Your task to perform on an android device: turn off javascript in the chrome app Image 0: 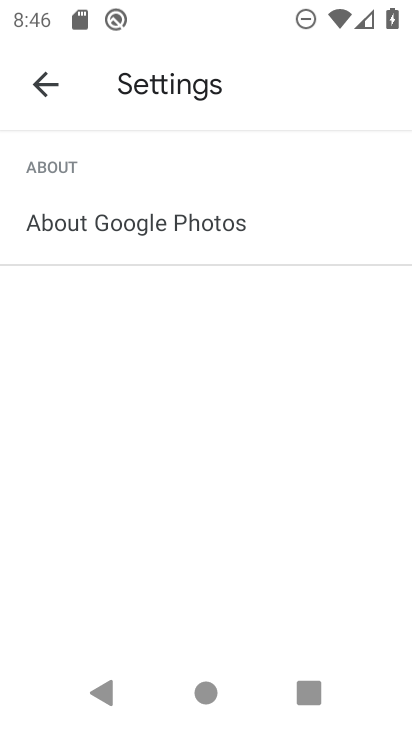
Step 0: press home button
Your task to perform on an android device: turn off javascript in the chrome app Image 1: 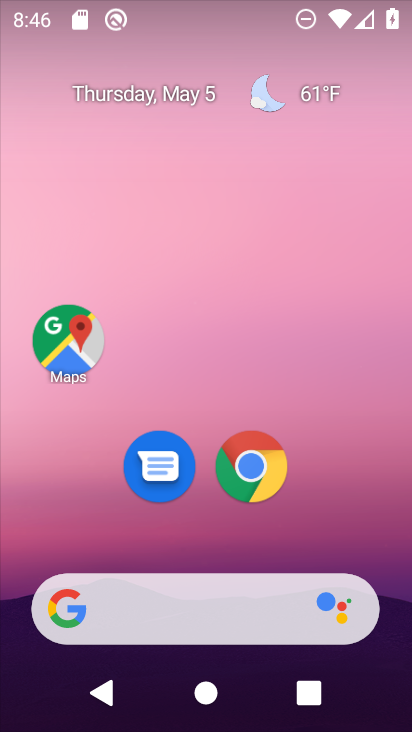
Step 1: click (263, 485)
Your task to perform on an android device: turn off javascript in the chrome app Image 2: 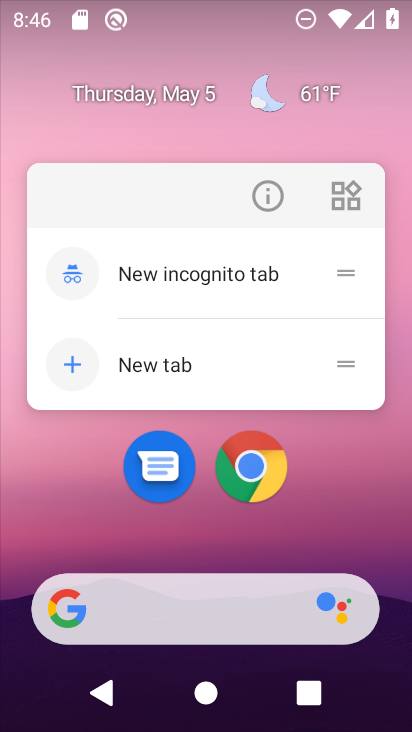
Step 2: click (253, 498)
Your task to perform on an android device: turn off javascript in the chrome app Image 3: 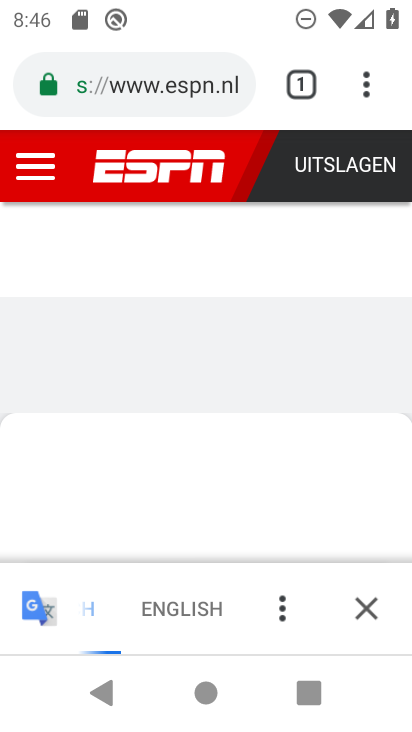
Step 3: drag from (369, 97) to (118, 518)
Your task to perform on an android device: turn off javascript in the chrome app Image 4: 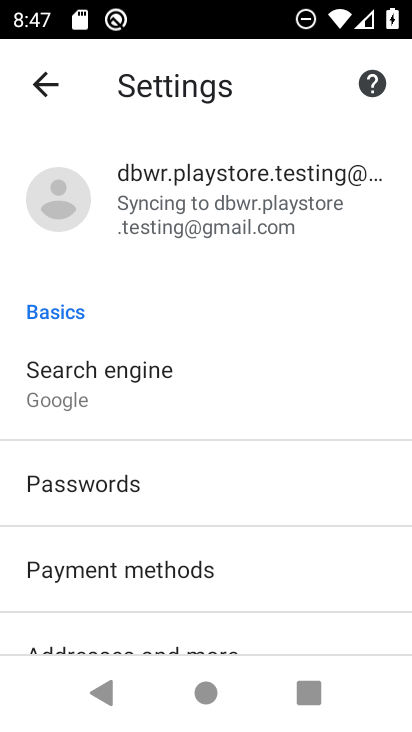
Step 4: drag from (230, 558) to (225, 215)
Your task to perform on an android device: turn off javascript in the chrome app Image 5: 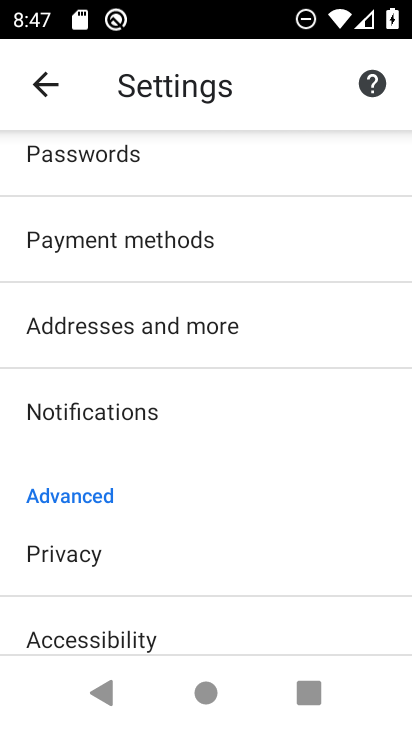
Step 5: drag from (189, 589) to (209, 127)
Your task to perform on an android device: turn off javascript in the chrome app Image 6: 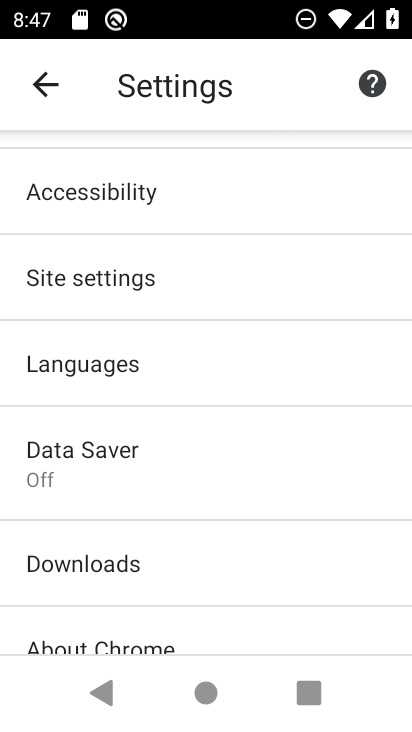
Step 6: click (152, 281)
Your task to perform on an android device: turn off javascript in the chrome app Image 7: 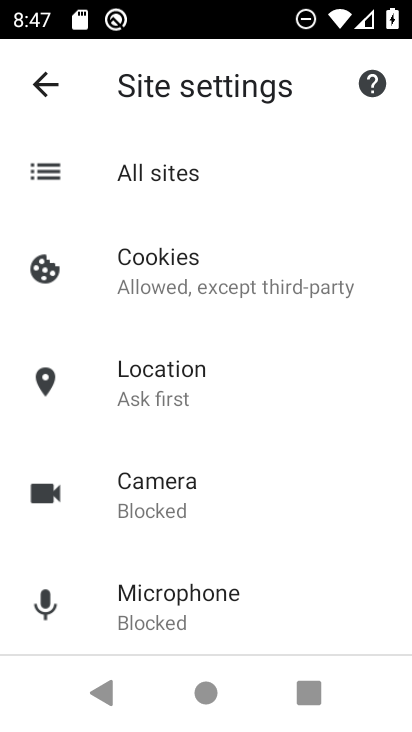
Step 7: drag from (240, 542) to (256, 262)
Your task to perform on an android device: turn off javascript in the chrome app Image 8: 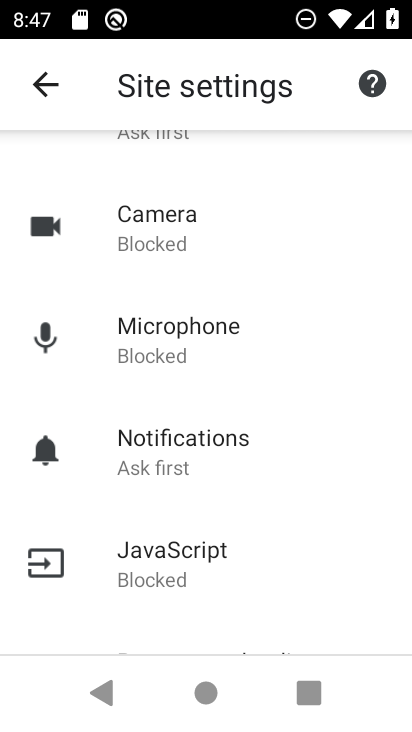
Step 8: click (225, 571)
Your task to perform on an android device: turn off javascript in the chrome app Image 9: 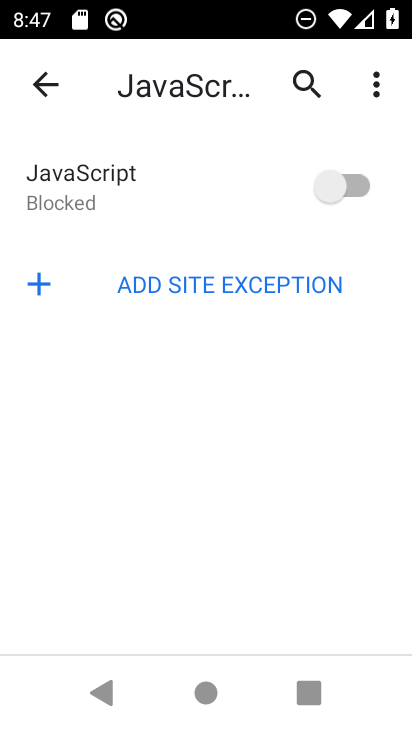
Step 9: task complete